Your task to perform on an android device: allow cookies in the chrome app Image 0: 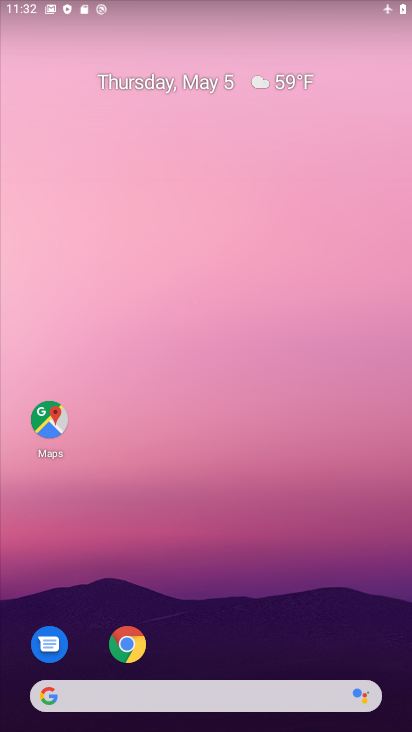
Step 0: click (134, 648)
Your task to perform on an android device: allow cookies in the chrome app Image 1: 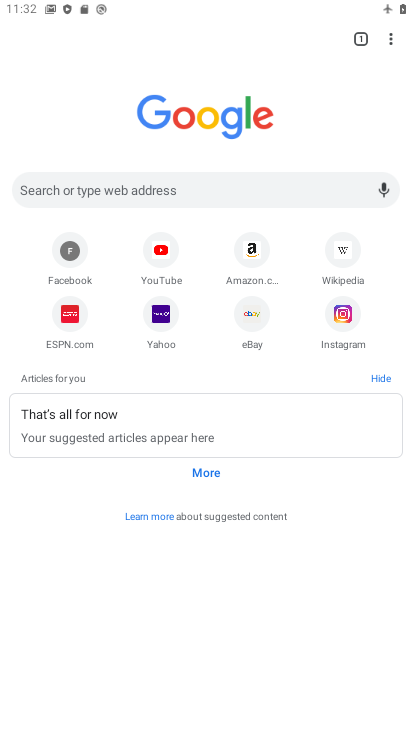
Step 1: click (389, 39)
Your task to perform on an android device: allow cookies in the chrome app Image 2: 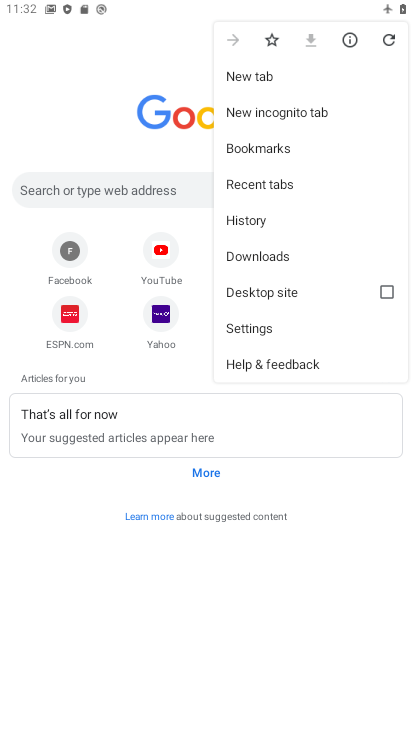
Step 2: click (251, 327)
Your task to perform on an android device: allow cookies in the chrome app Image 3: 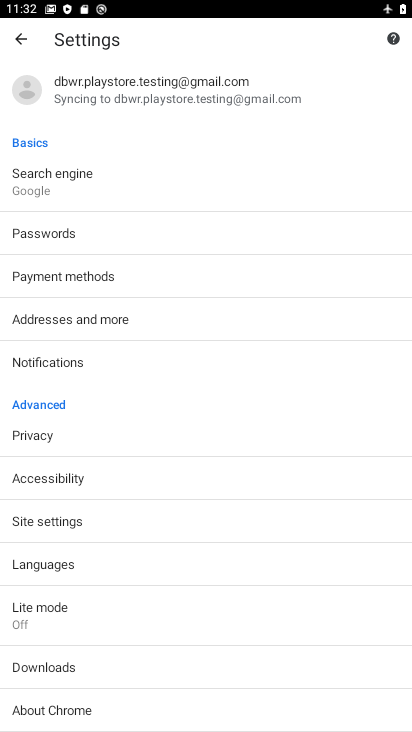
Step 3: drag from (89, 653) to (192, 343)
Your task to perform on an android device: allow cookies in the chrome app Image 4: 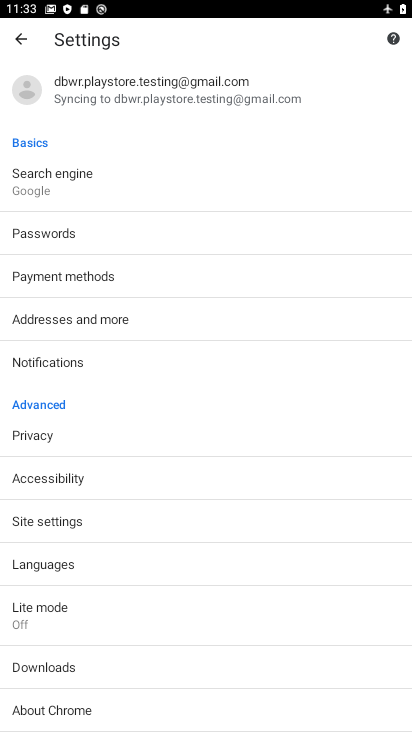
Step 4: drag from (53, 618) to (169, 212)
Your task to perform on an android device: allow cookies in the chrome app Image 5: 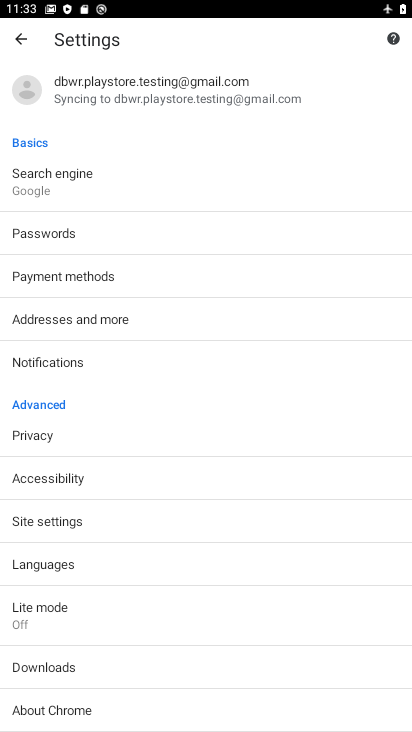
Step 5: click (89, 516)
Your task to perform on an android device: allow cookies in the chrome app Image 6: 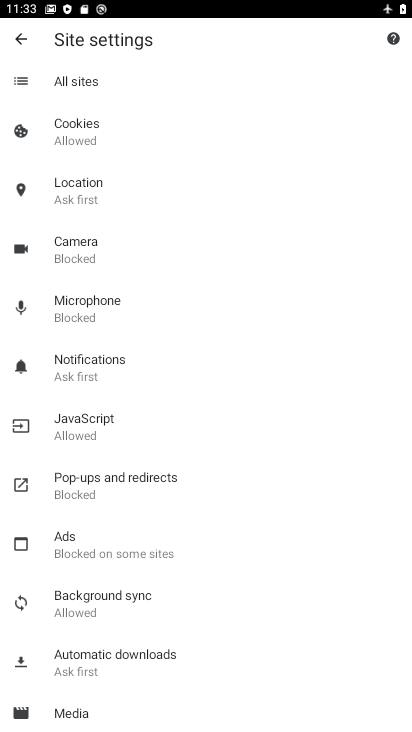
Step 6: click (136, 146)
Your task to perform on an android device: allow cookies in the chrome app Image 7: 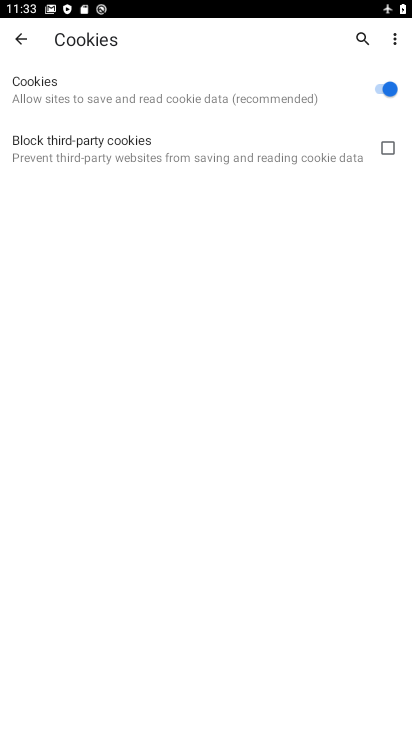
Step 7: task complete